Your task to perform on an android device: install app "Google Home" Image 0: 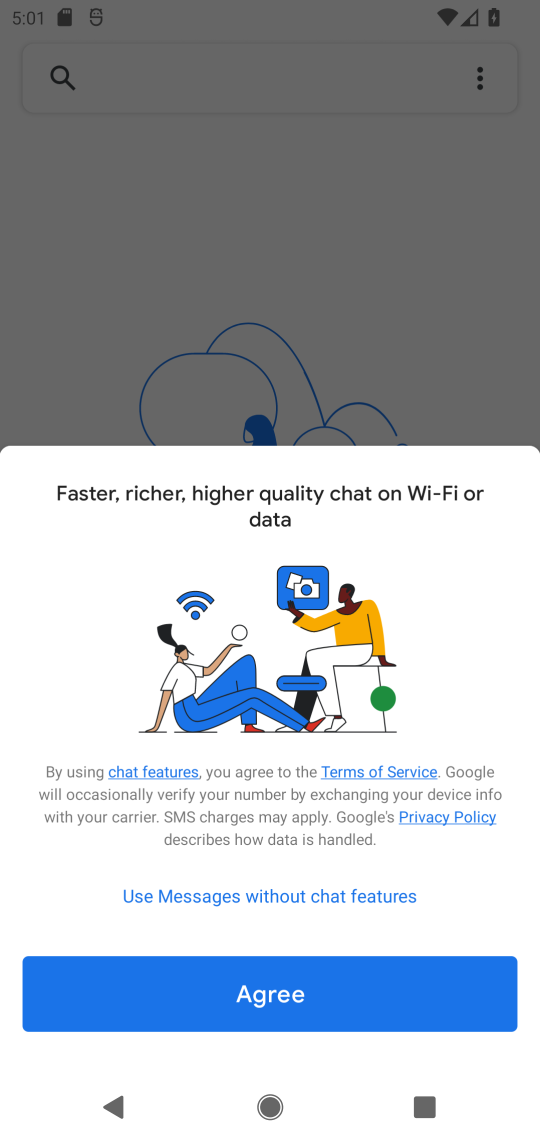
Step 0: press home button
Your task to perform on an android device: install app "Google Home" Image 1: 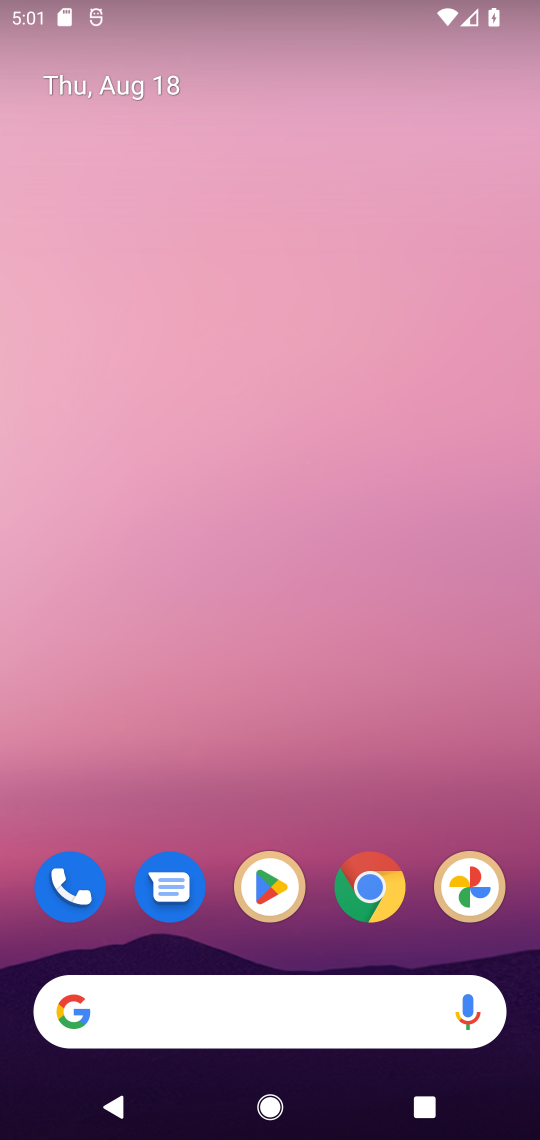
Step 1: click (260, 889)
Your task to perform on an android device: install app "Google Home" Image 2: 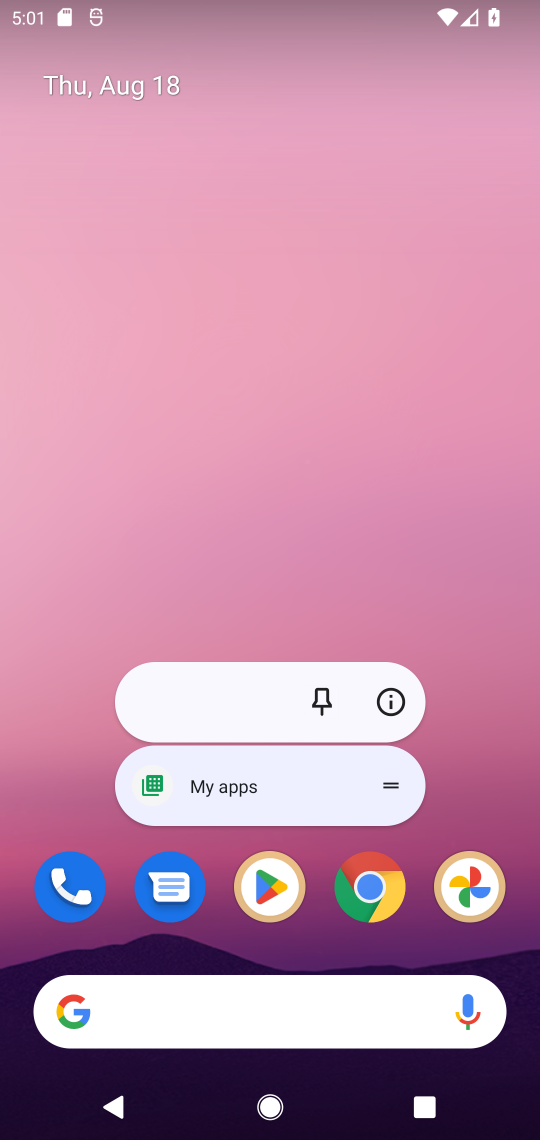
Step 2: click (257, 898)
Your task to perform on an android device: install app "Google Home" Image 3: 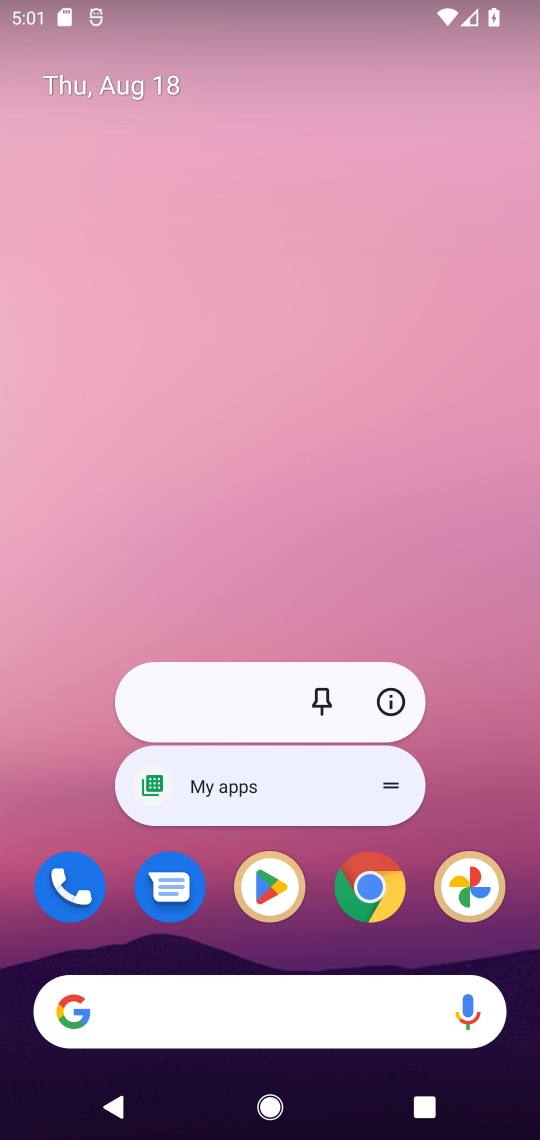
Step 3: click (257, 898)
Your task to perform on an android device: install app "Google Home" Image 4: 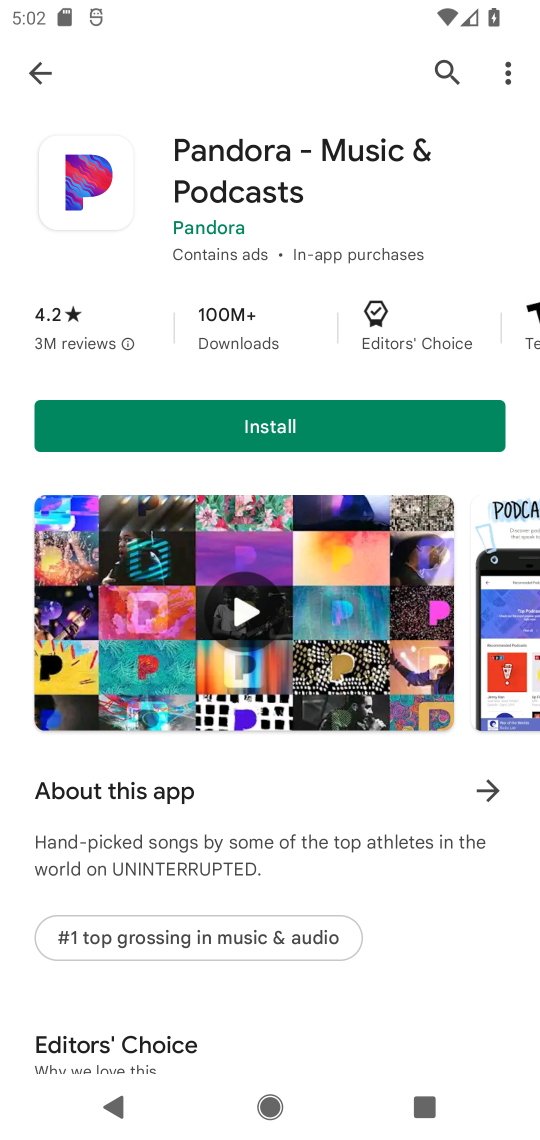
Step 4: click (291, 433)
Your task to perform on an android device: install app "Google Home" Image 5: 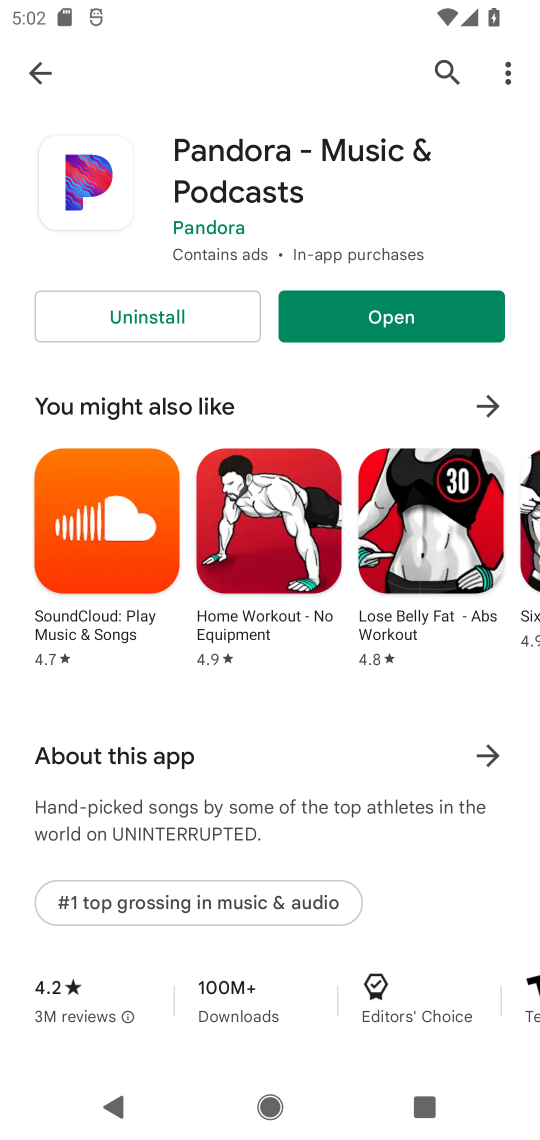
Step 5: click (444, 69)
Your task to perform on an android device: install app "Google Home" Image 6: 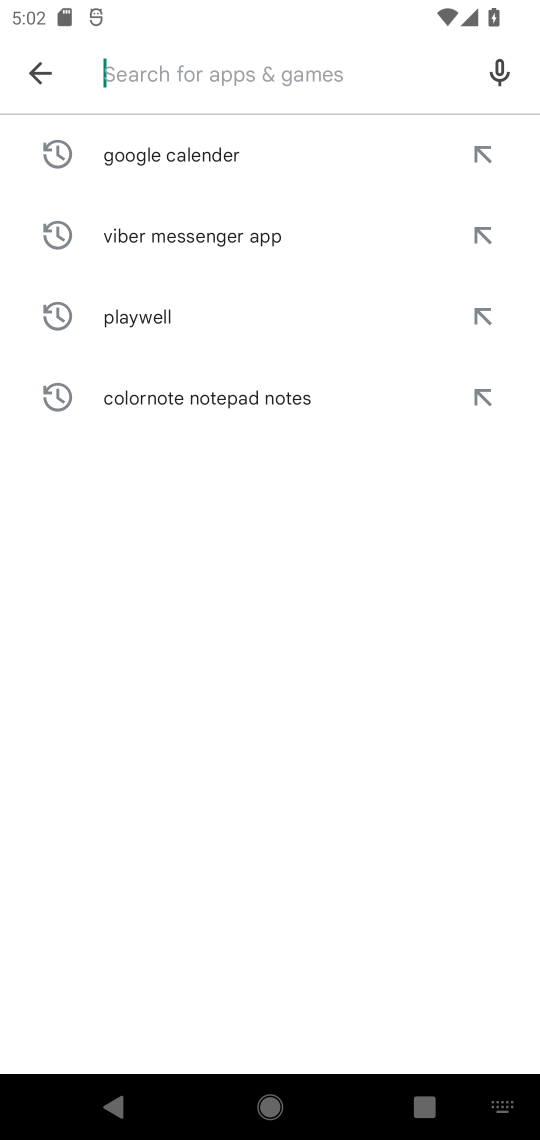
Step 6: type "Google Home"
Your task to perform on an android device: install app "Google Home" Image 7: 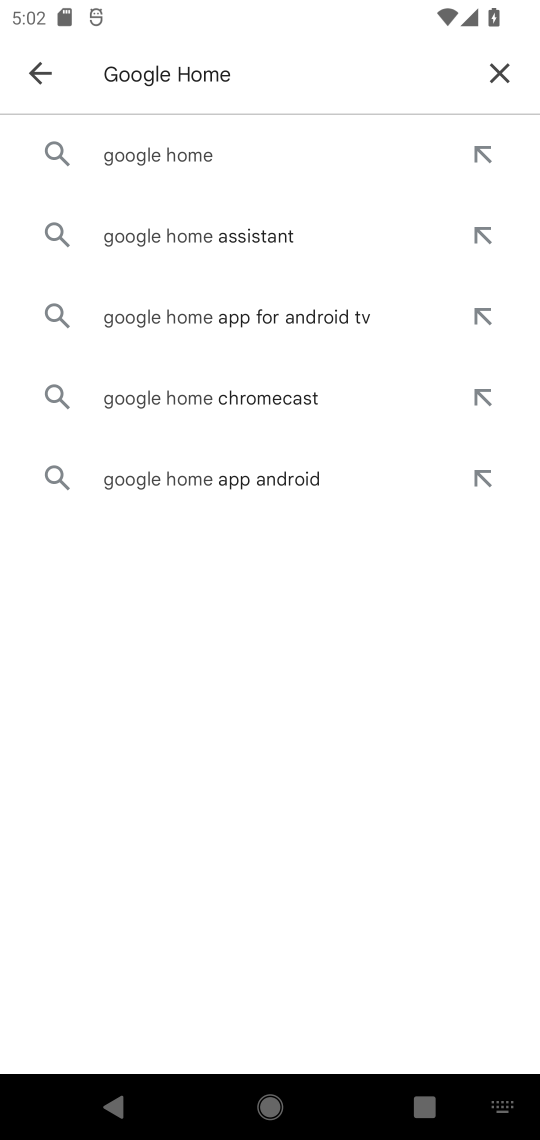
Step 7: click (107, 155)
Your task to perform on an android device: install app "Google Home" Image 8: 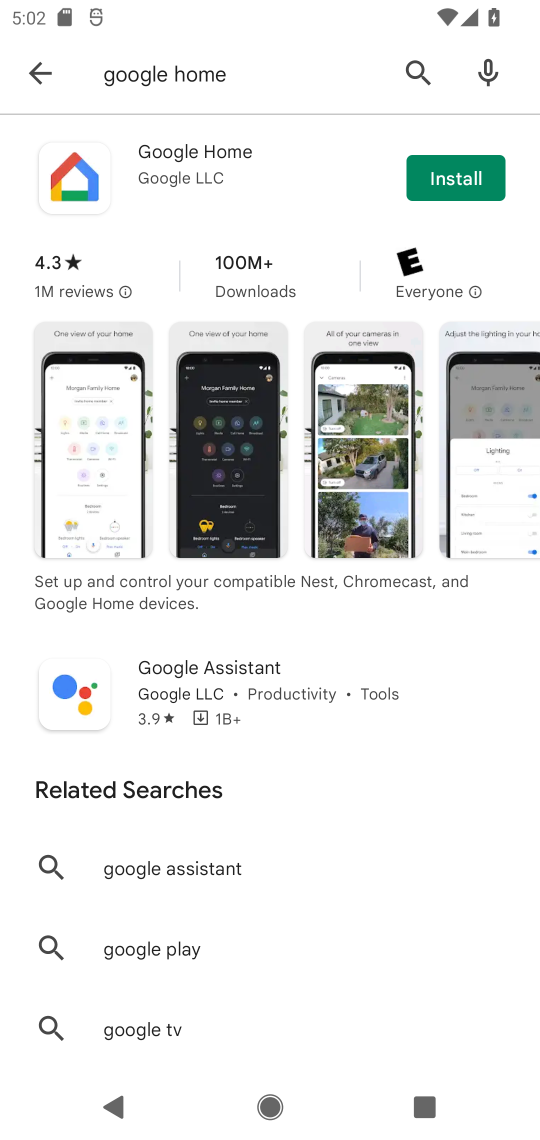
Step 8: click (451, 186)
Your task to perform on an android device: install app "Google Home" Image 9: 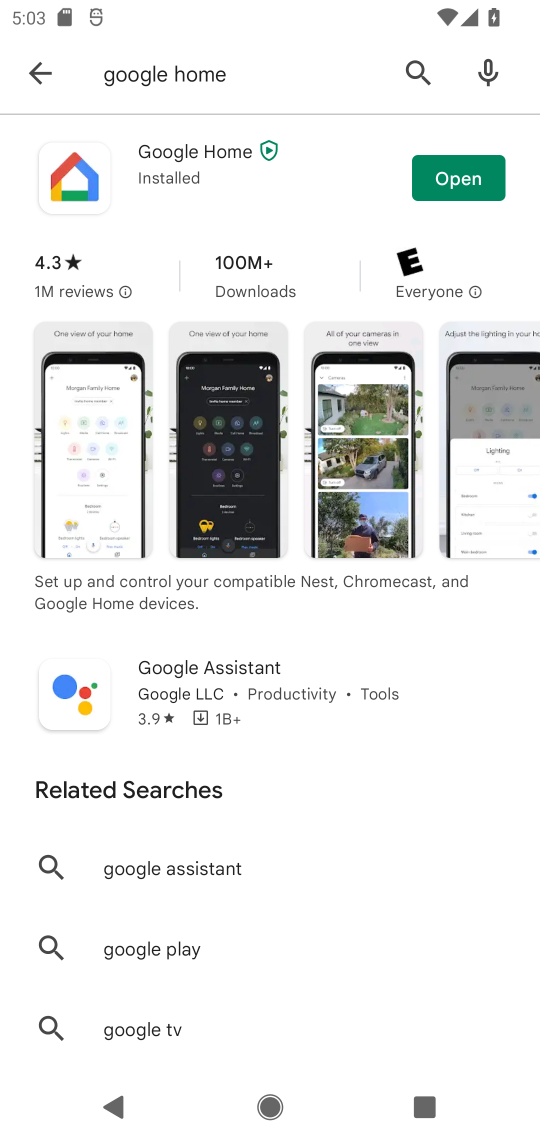
Step 9: task complete